Your task to perform on an android device: Open network settings Image 0: 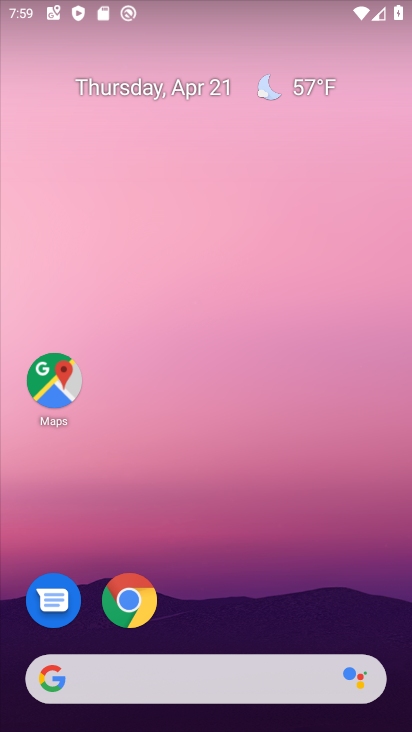
Step 0: drag from (277, 521) to (238, 125)
Your task to perform on an android device: Open network settings Image 1: 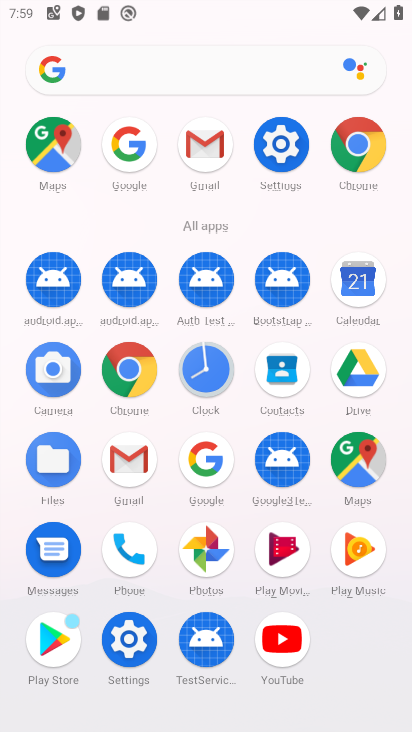
Step 1: click (299, 157)
Your task to perform on an android device: Open network settings Image 2: 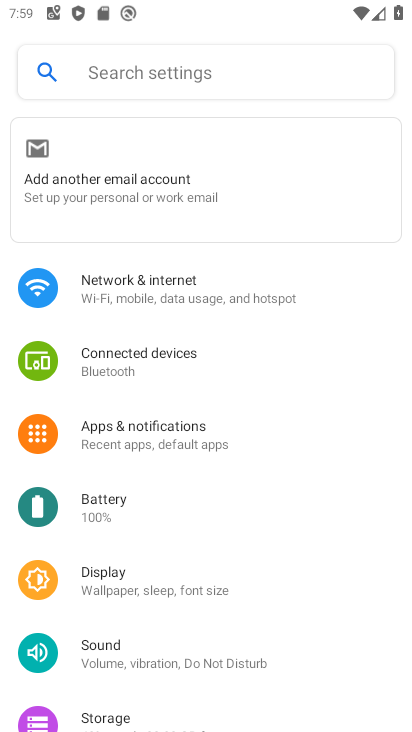
Step 2: click (163, 295)
Your task to perform on an android device: Open network settings Image 3: 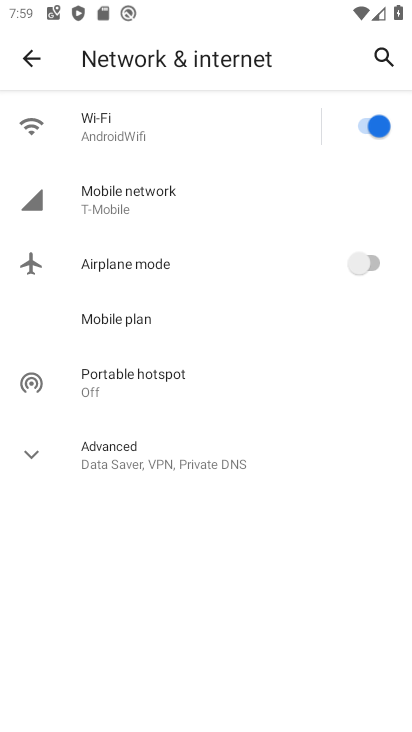
Step 3: task complete